Your task to perform on an android device: turn vacation reply on in the gmail app Image 0: 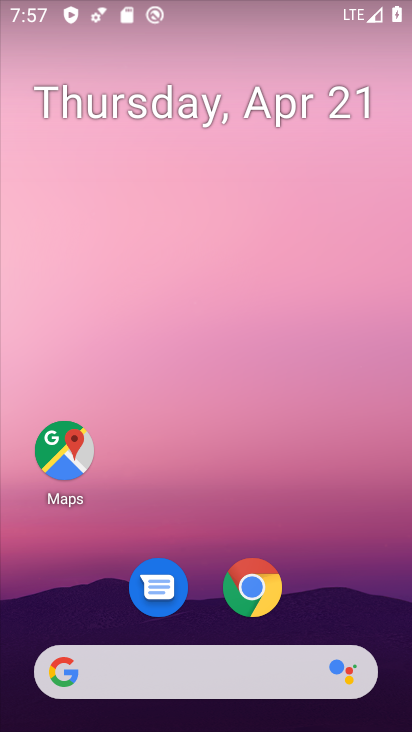
Step 0: drag from (383, 641) to (371, 127)
Your task to perform on an android device: turn vacation reply on in the gmail app Image 1: 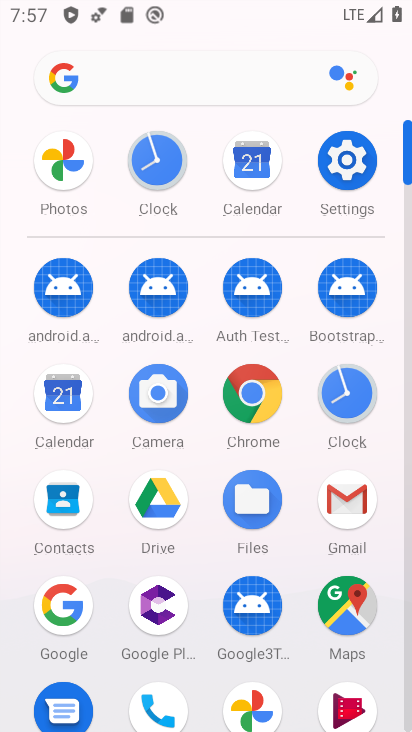
Step 1: click (352, 503)
Your task to perform on an android device: turn vacation reply on in the gmail app Image 2: 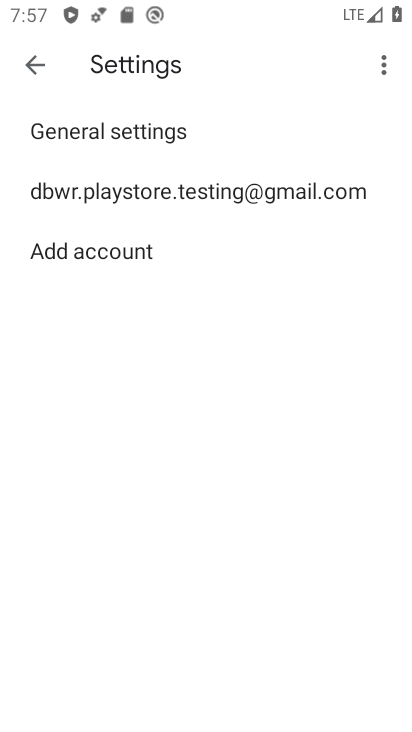
Step 2: click (88, 195)
Your task to perform on an android device: turn vacation reply on in the gmail app Image 3: 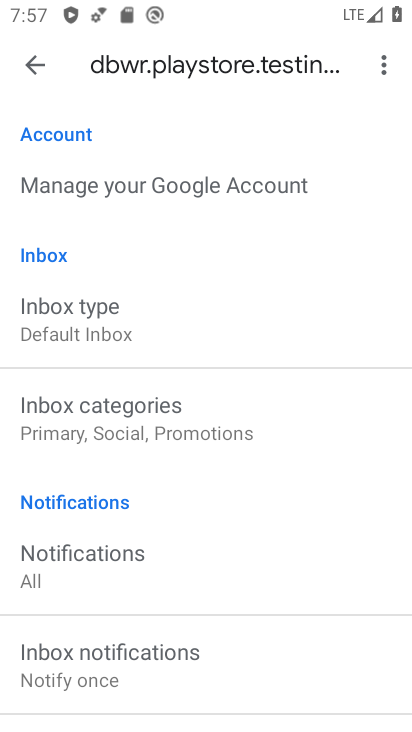
Step 3: task complete